Your task to perform on an android device: Toggle the flashlight Image 0: 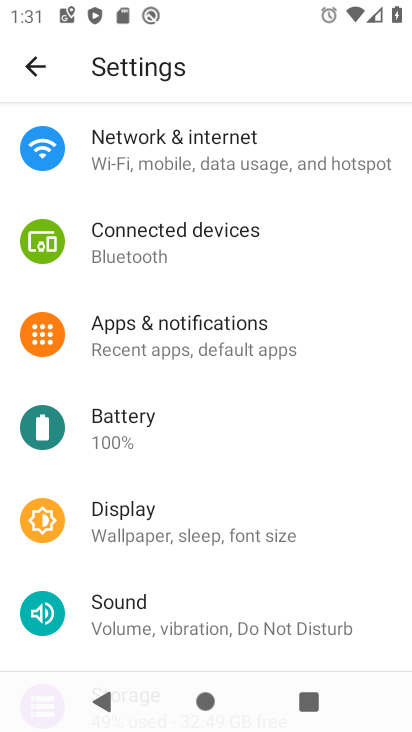
Step 0: drag from (262, 278) to (263, 566)
Your task to perform on an android device: Toggle the flashlight Image 1: 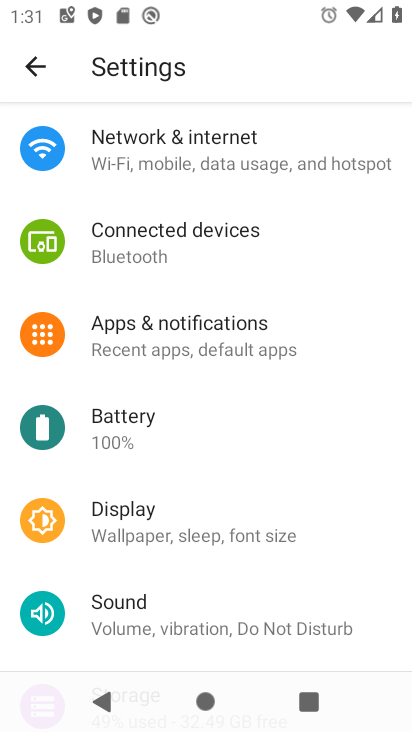
Step 1: press home button
Your task to perform on an android device: Toggle the flashlight Image 2: 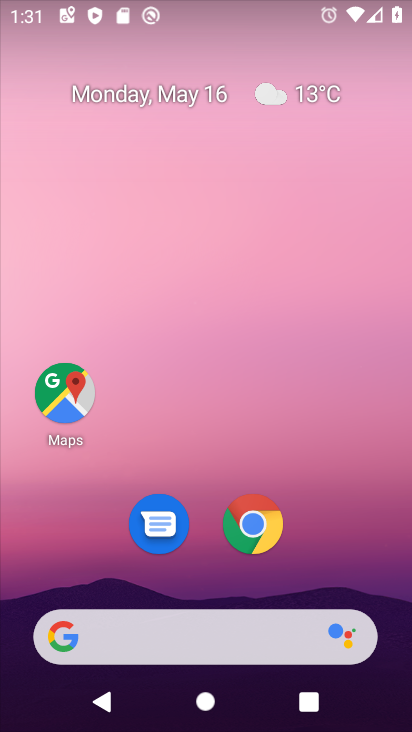
Step 2: drag from (245, 441) to (256, 2)
Your task to perform on an android device: Toggle the flashlight Image 3: 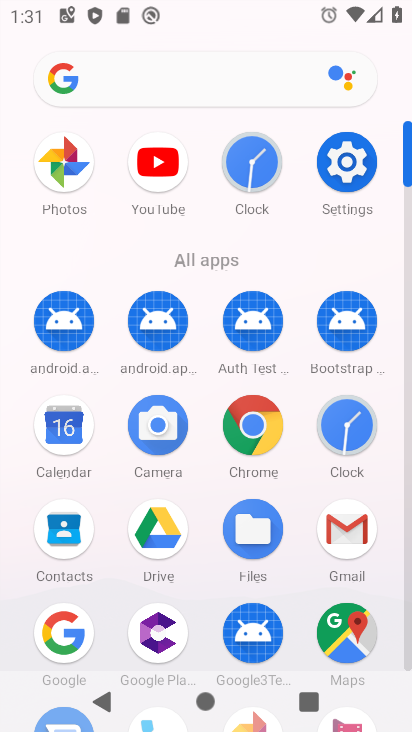
Step 3: click (336, 166)
Your task to perform on an android device: Toggle the flashlight Image 4: 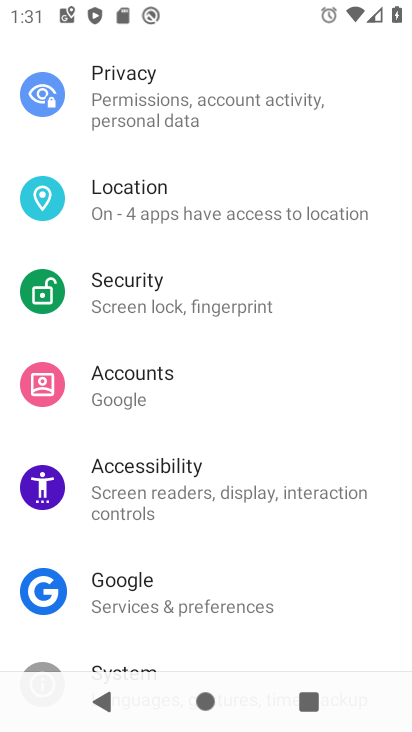
Step 4: drag from (233, 171) to (289, 616)
Your task to perform on an android device: Toggle the flashlight Image 5: 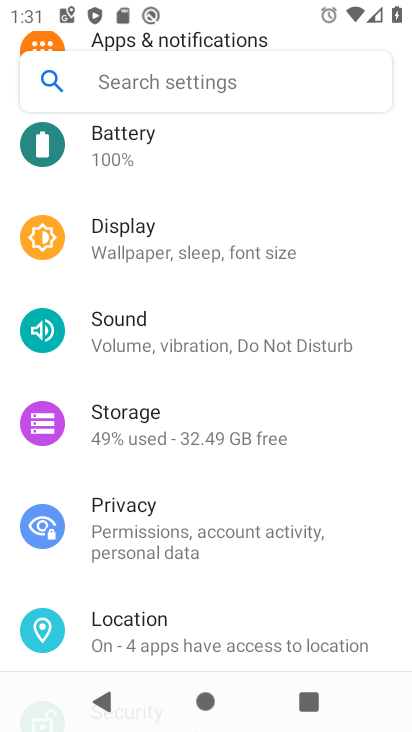
Step 5: drag from (245, 170) to (272, 533)
Your task to perform on an android device: Toggle the flashlight Image 6: 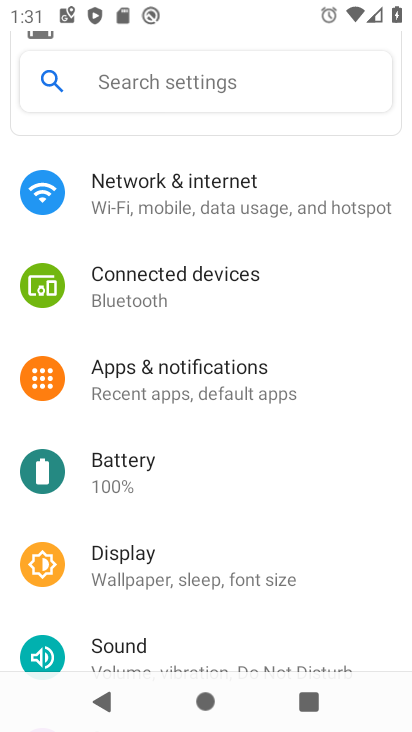
Step 6: drag from (237, 227) to (261, 578)
Your task to perform on an android device: Toggle the flashlight Image 7: 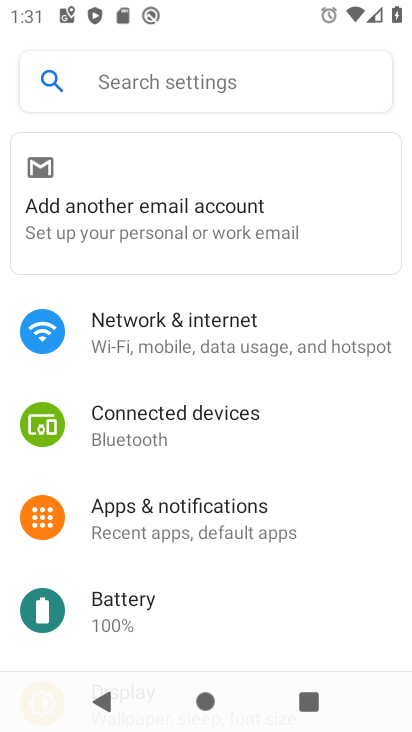
Step 7: click (227, 75)
Your task to perform on an android device: Toggle the flashlight Image 8: 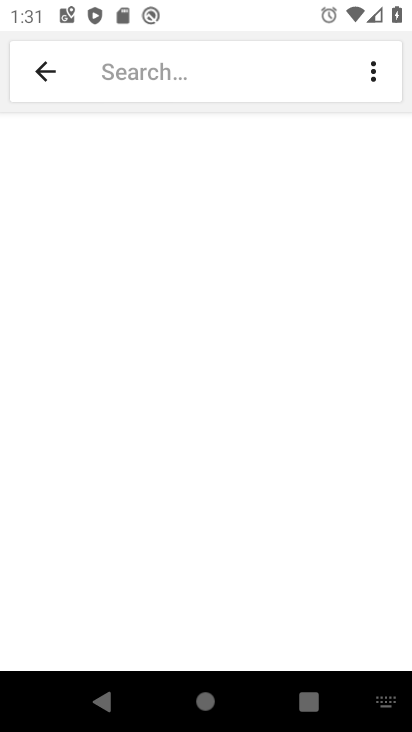
Step 8: type "Flashlight"
Your task to perform on an android device: Toggle the flashlight Image 9: 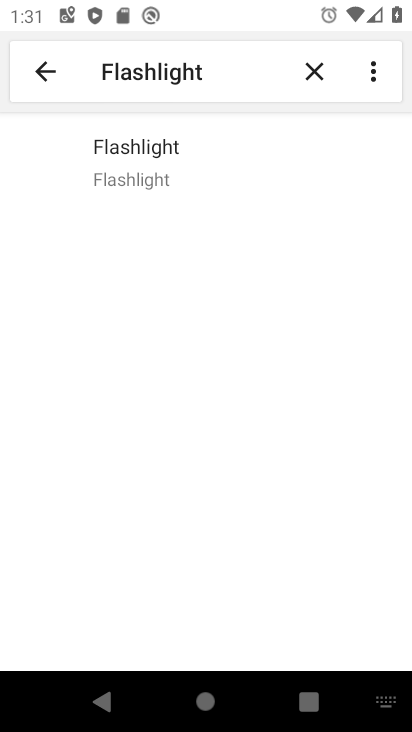
Step 9: click (139, 157)
Your task to perform on an android device: Toggle the flashlight Image 10: 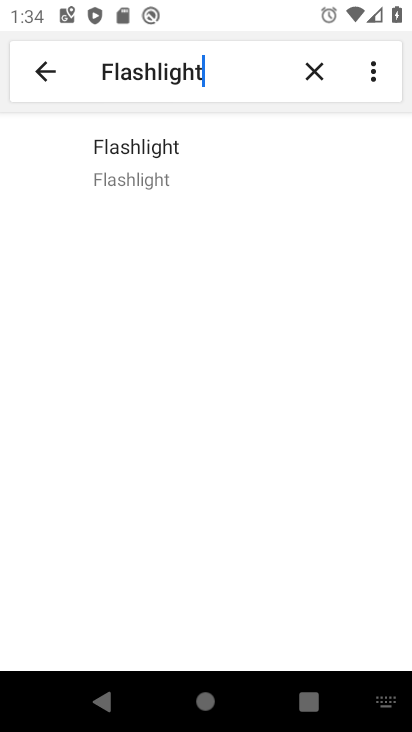
Step 10: task complete